Your task to perform on an android device: change timer sound Image 0: 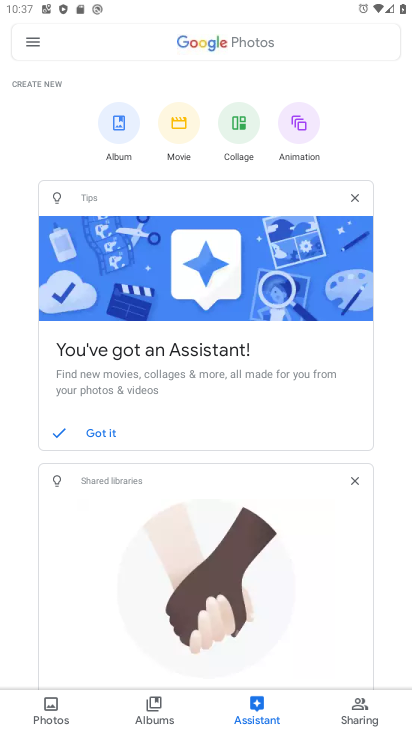
Step 0: press home button
Your task to perform on an android device: change timer sound Image 1: 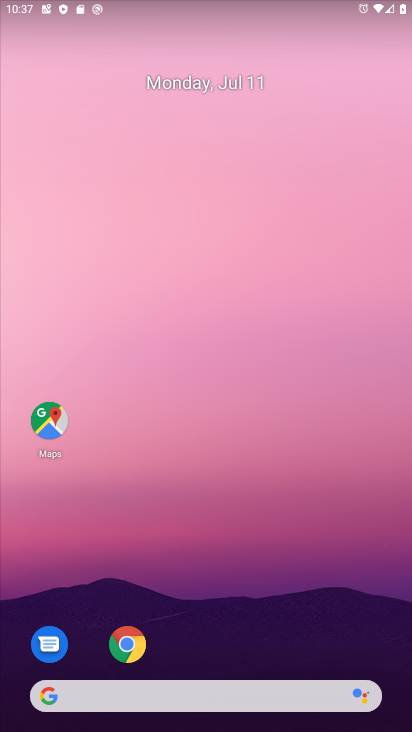
Step 1: drag from (221, 651) to (211, 135)
Your task to perform on an android device: change timer sound Image 2: 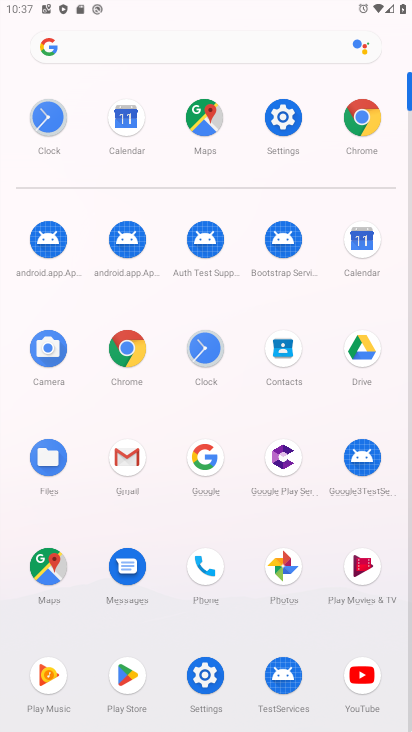
Step 2: click (202, 344)
Your task to perform on an android device: change timer sound Image 3: 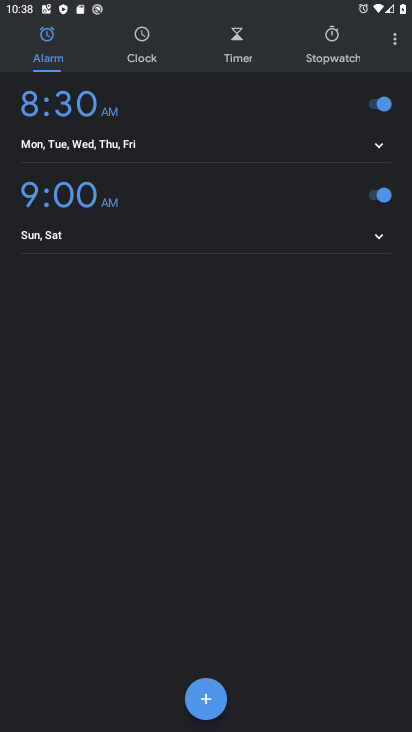
Step 3: click (396, 40)
Your task to perform on an android device: change timer sound Image 4: 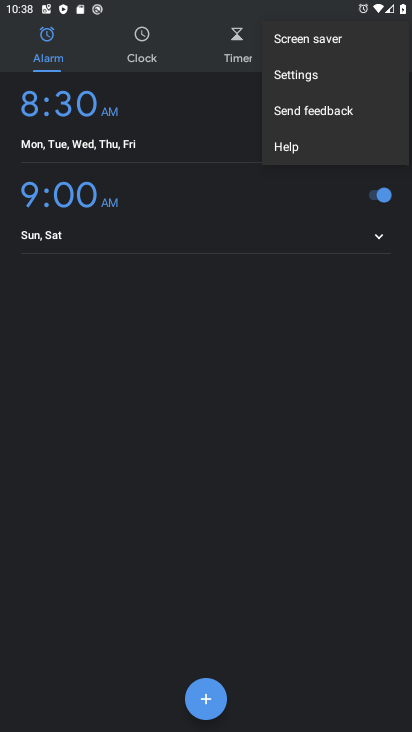
Step 4: click (324, 75)
Your task to perform on an android device: change timer sound Image 5: 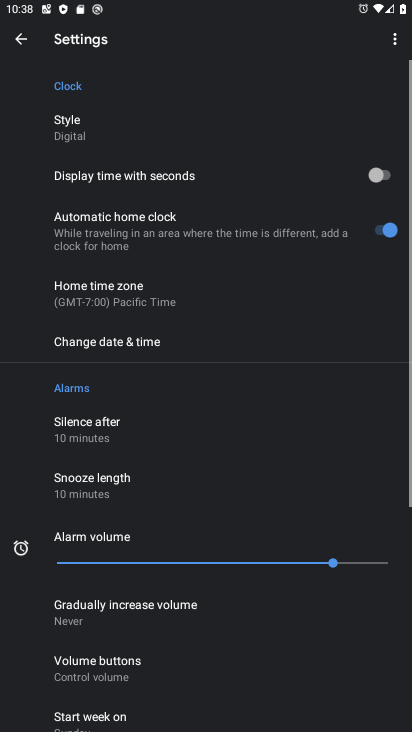
Step 5: drag from (155, 647) to (181, 202)
Your task to perform on an android device: change timer sound Image 6: 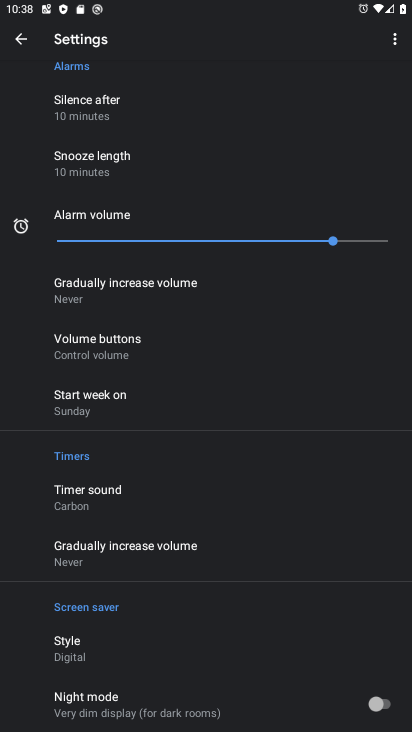
Step 6: click (119, 497)
Your task to perform on an android device: change timer sound Image 7: 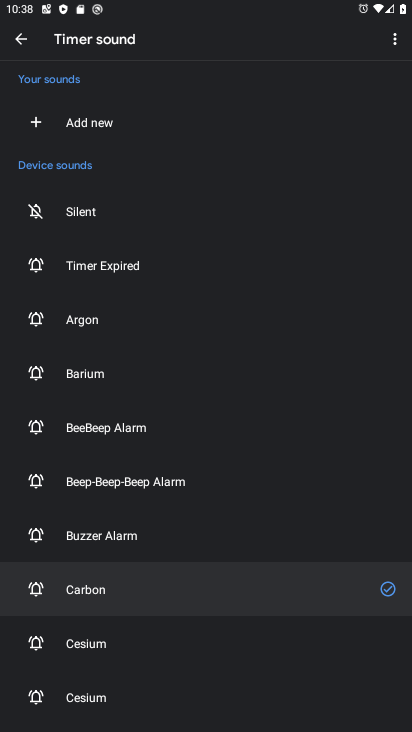
Step 7: click (144, 424)
Your task to perform on an android device: change timer sound Image 8: 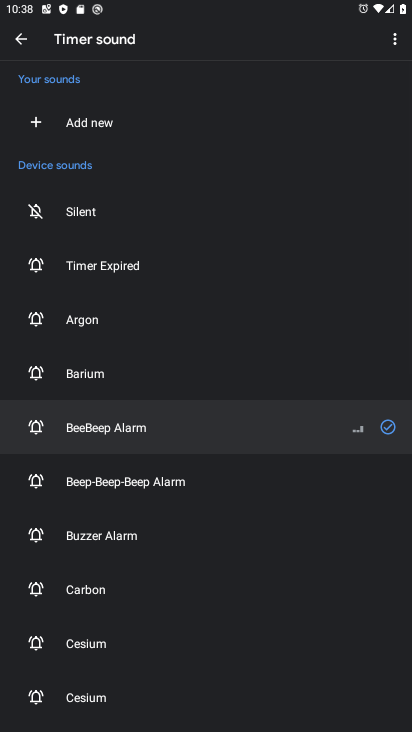
Step 8: task complete